Your task to perform on an android device: open app "Indeed Job Search" (install if not already installed) Image 0: 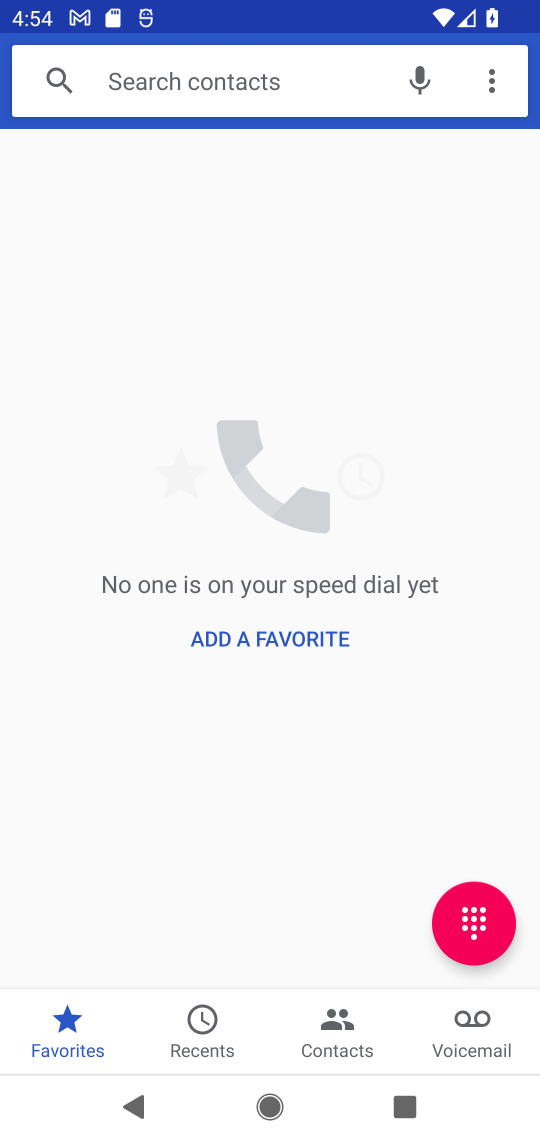
Step 0: press home button
Your task to perform on an android device: open app "Indeed Job Search" (install if not already installed) Image 1: 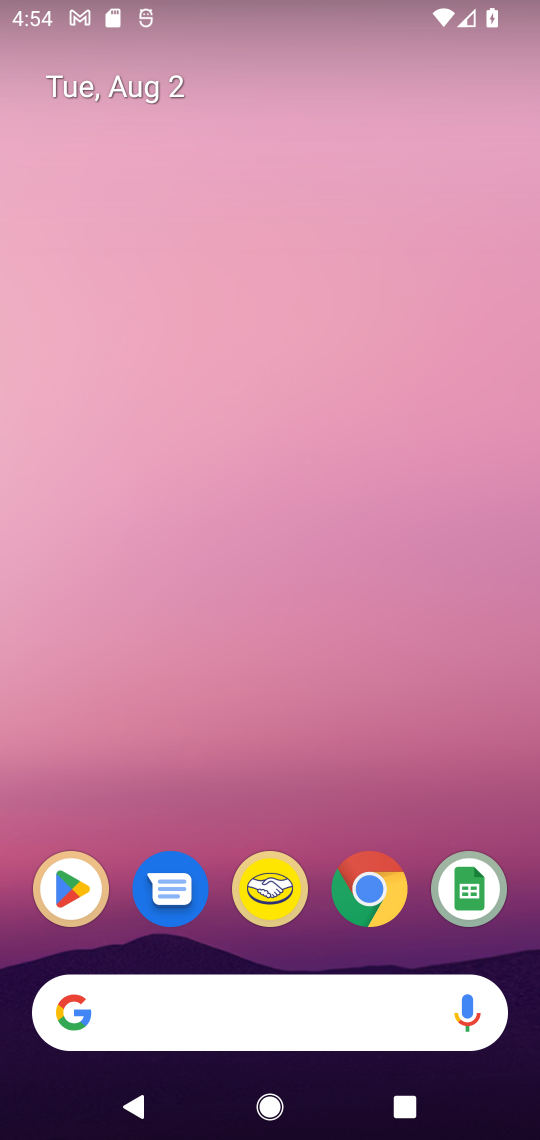
Step 1: drag from (417, 715) to (366, 64)
Your task to perform on an android device: open app "Indeed Job Search" (install if not already installed) Image 2: 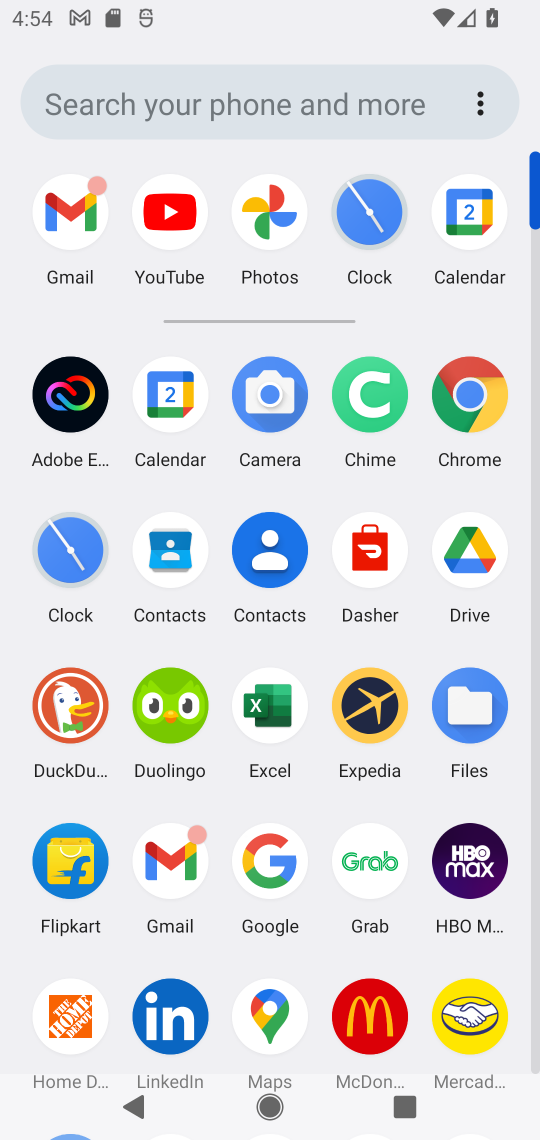
Step 2: drag from (529, 812) to (526, 431)
Your task to perform on an android device: open app "Indeed Job Search" (install if not already installed) Image 3: 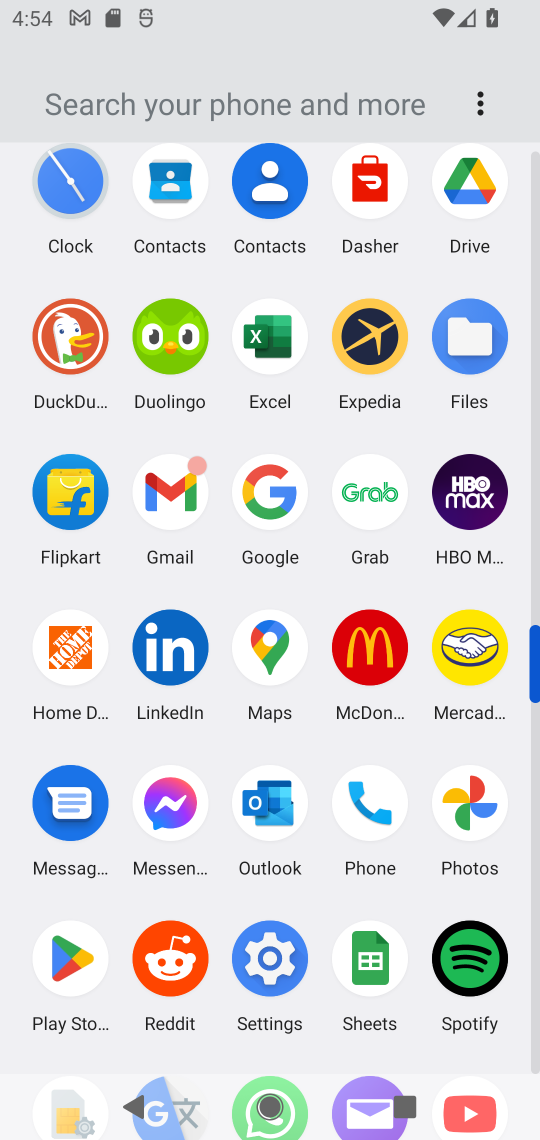
Step 3: click (57, 968)
Your task to perform on an android device: open app "Indeed Job Search" (install if not already installed) Image 4: 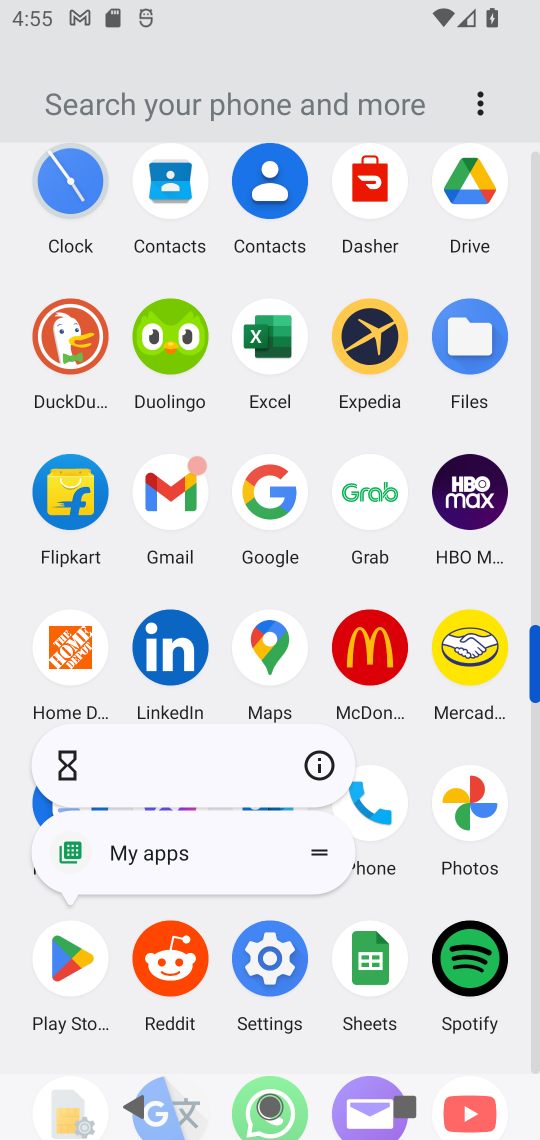
Step 4: click (56, 978)
Your task to perform on an android device: open app "Indeed Job Search" (install if not already installed) Image 5: 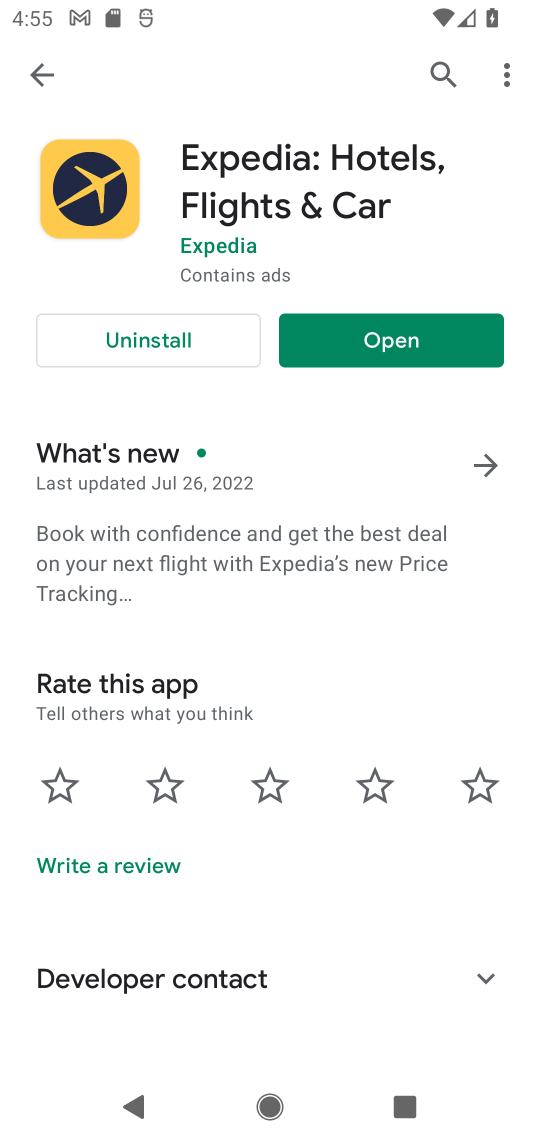
Step 5: click (450, 64)
Your task to perform on an android device: open app "Indeed Job Search" (install if not already installed) Image 6: 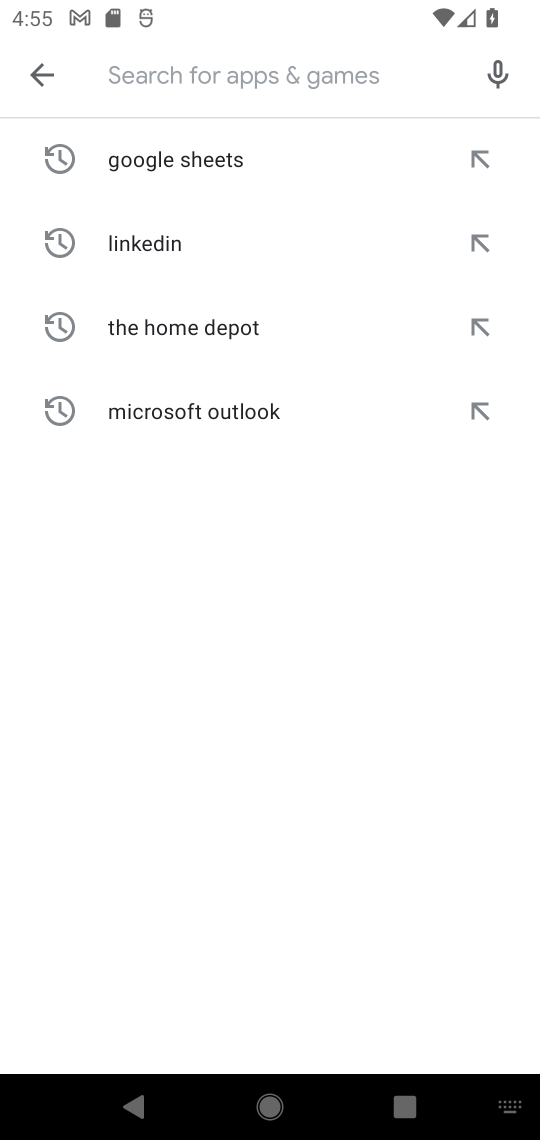
Step 6: click (259, 65)
Your task to perform on an android device: open app "Indeed Job Search" (install if not already installed) Image 7: 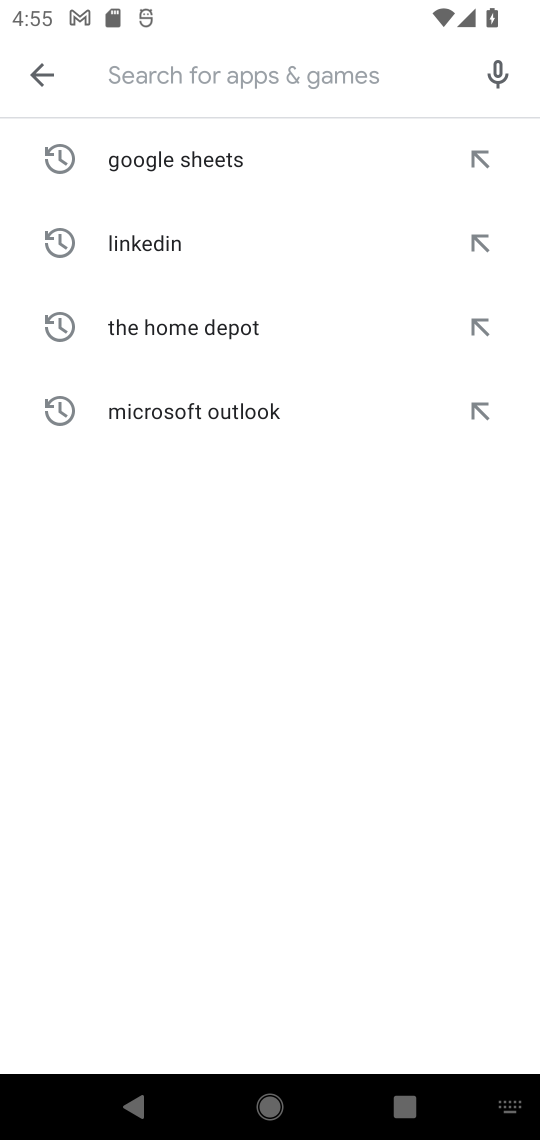
Step 7: type "Indeed Job Search"
Your task to perform on an android device: open app "Indeed Job Search" (install if not already installed) Image 8: 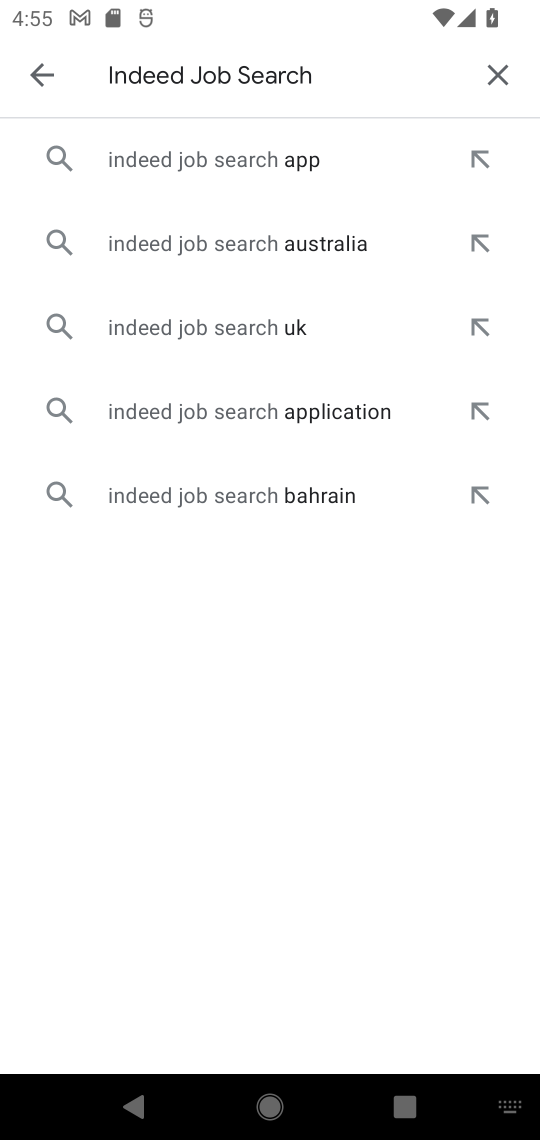
Step 8: click (284, 160)
Your task to perform on an android device: open app "Indeed Job Search" (install if not already installed) Image 9: 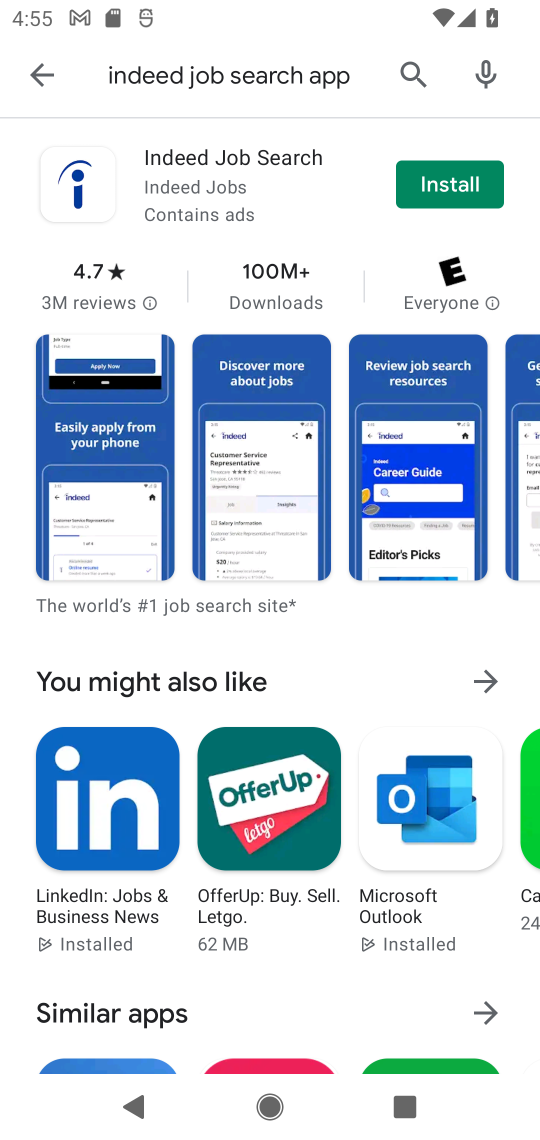
Step 9: click (466, 185)
Your task to perform on an android device: open app "Indeed Job Search" (install if not already installed) Image 10: 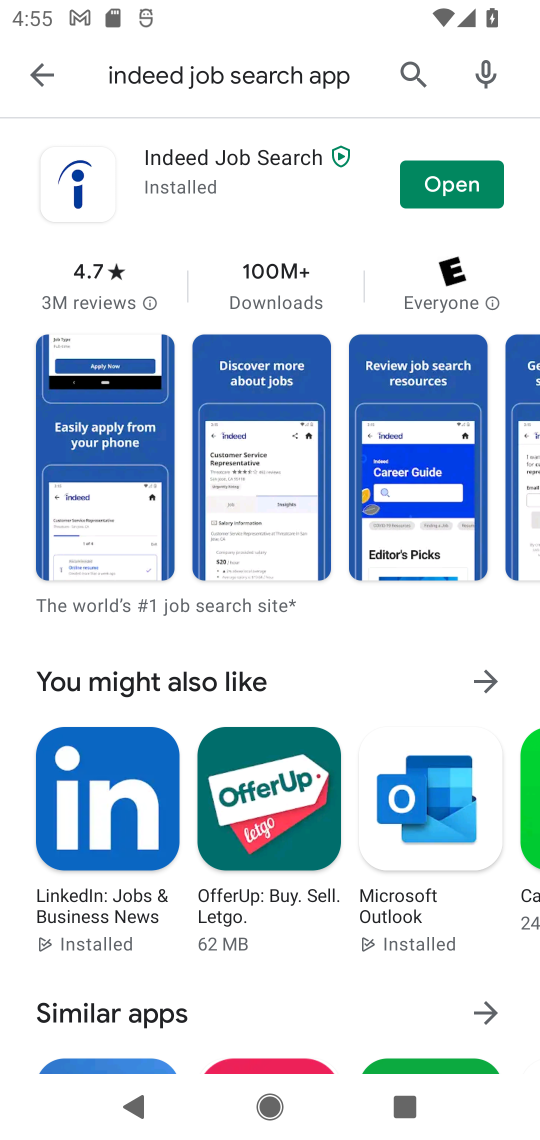
Step 10: click (431, 192)
Your task to perform on an android device: open app "Indeed Job Search" (install if not already installed) Image 11: 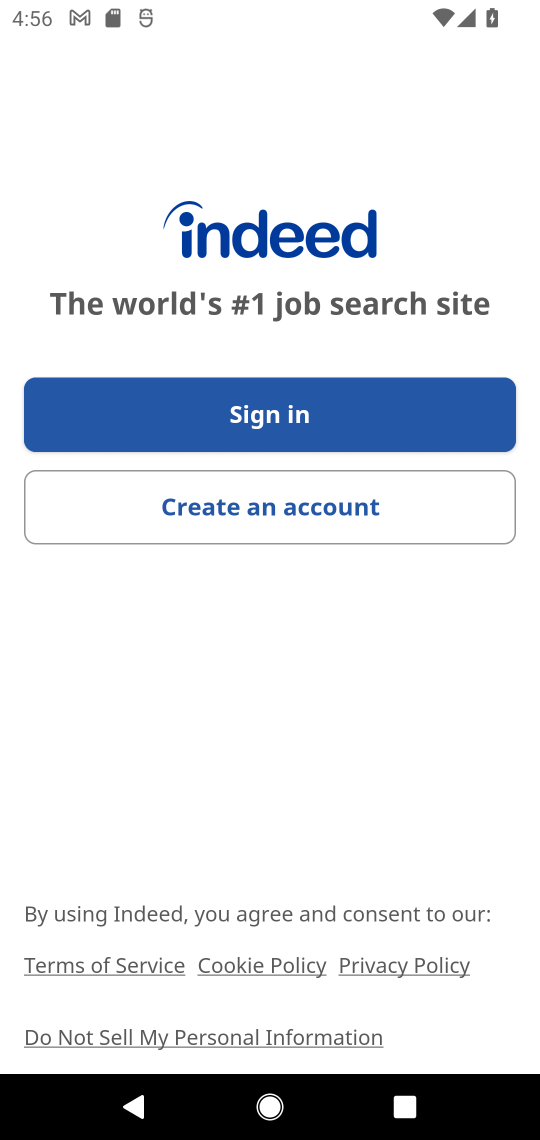
Step 11: task complete